Your task to perform on an android device: Add "usb-c to usb-b" to the cart on newegg, then select checkout. Image 0: 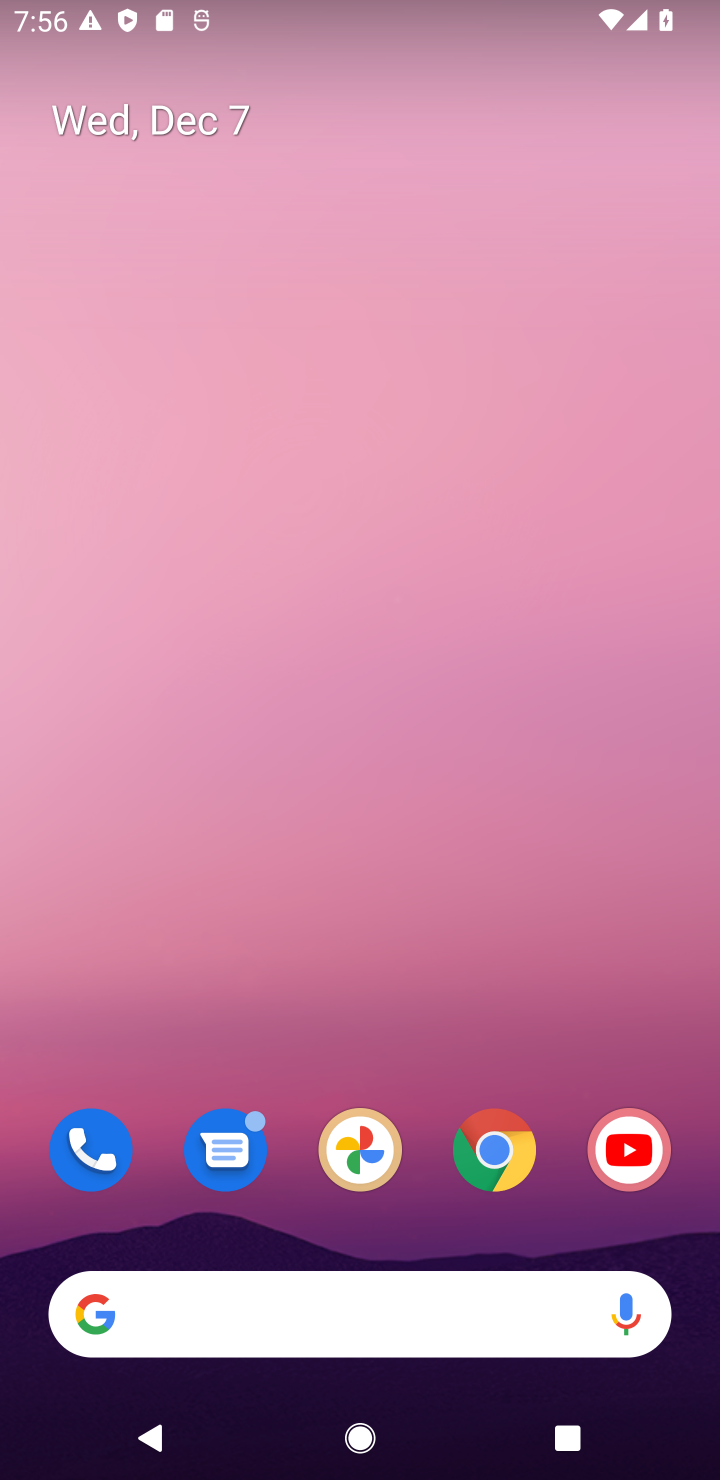
Step 0: click (494, 1164)
Your task to perform on an android device: Add "usb-c to usb-b" to the cart on newegg, then select checkout. Image 1: 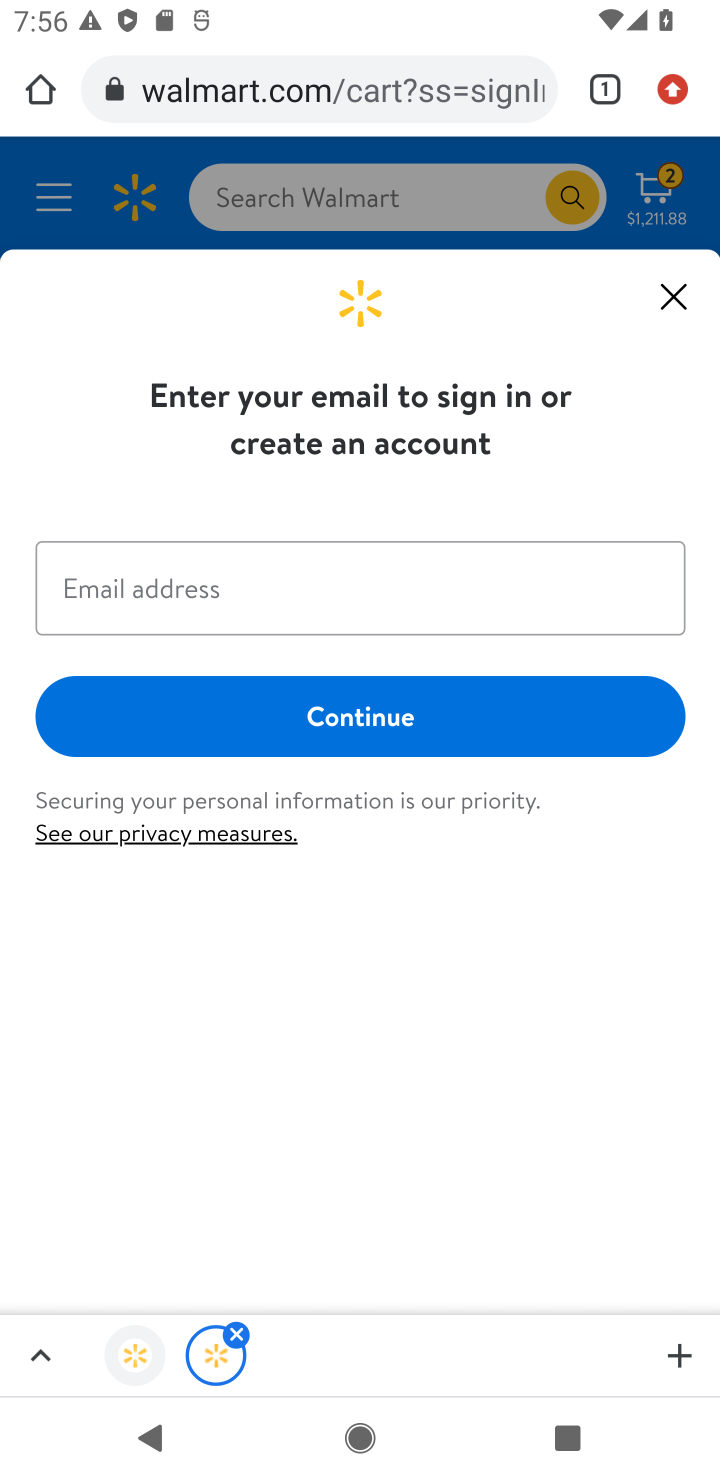
Step 1: click (342, 88)
Your task to perform on an android device: Add "usb-c to usb-b" to the cart on newegg, then select checkout. Image 2: 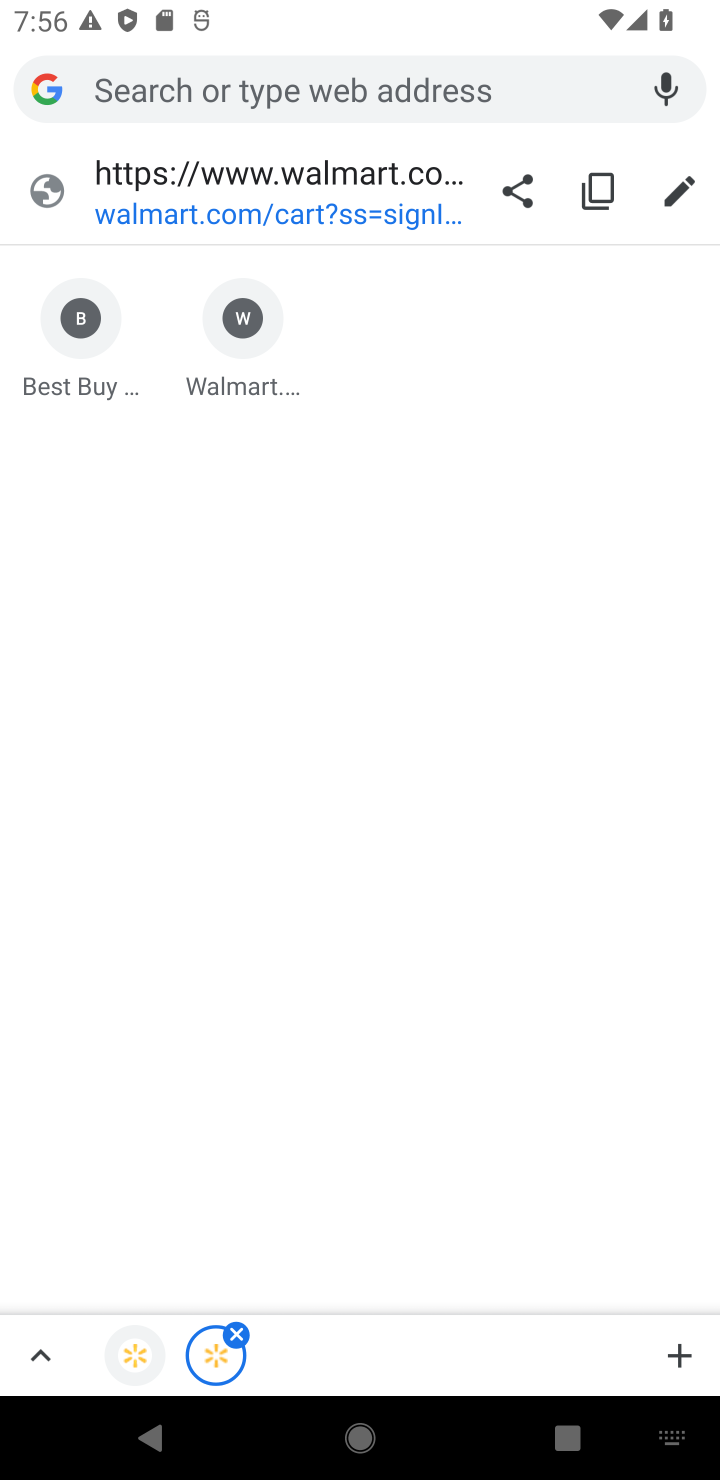
Step 2: type "newegg"
Your task to perform on an android device: Add "usb-c to usb-b" to the cart on newegg, then select checkout. Image 3: 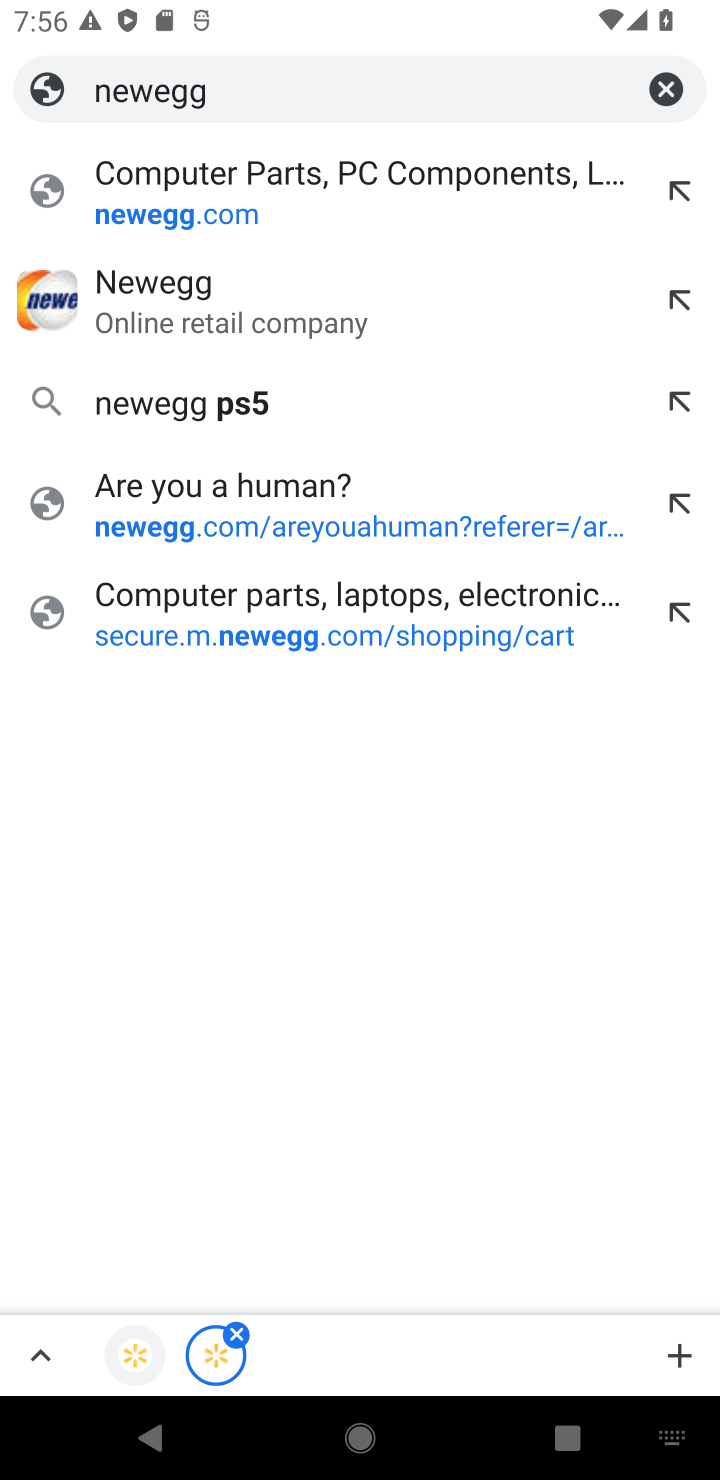
Step 3: click (233, 194)
Your task to perform on an android device: Add "usb-c to usb-b" to the cart on newegg, then select checkout. Image 4: 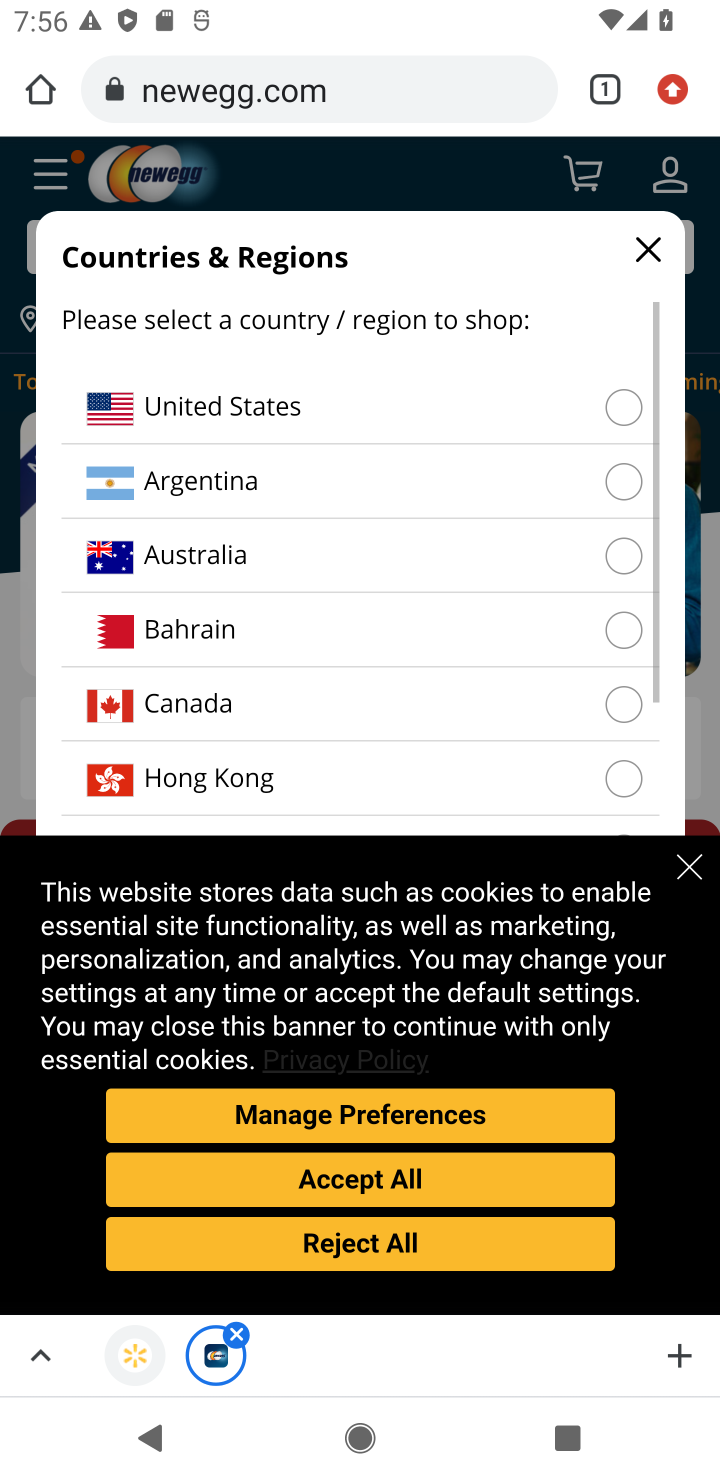
Step 4: click (642, 248)
Your task to perform on an android device: Add "usb-c to usb-b" to the cart on newegg, then select checkout. Image 5: 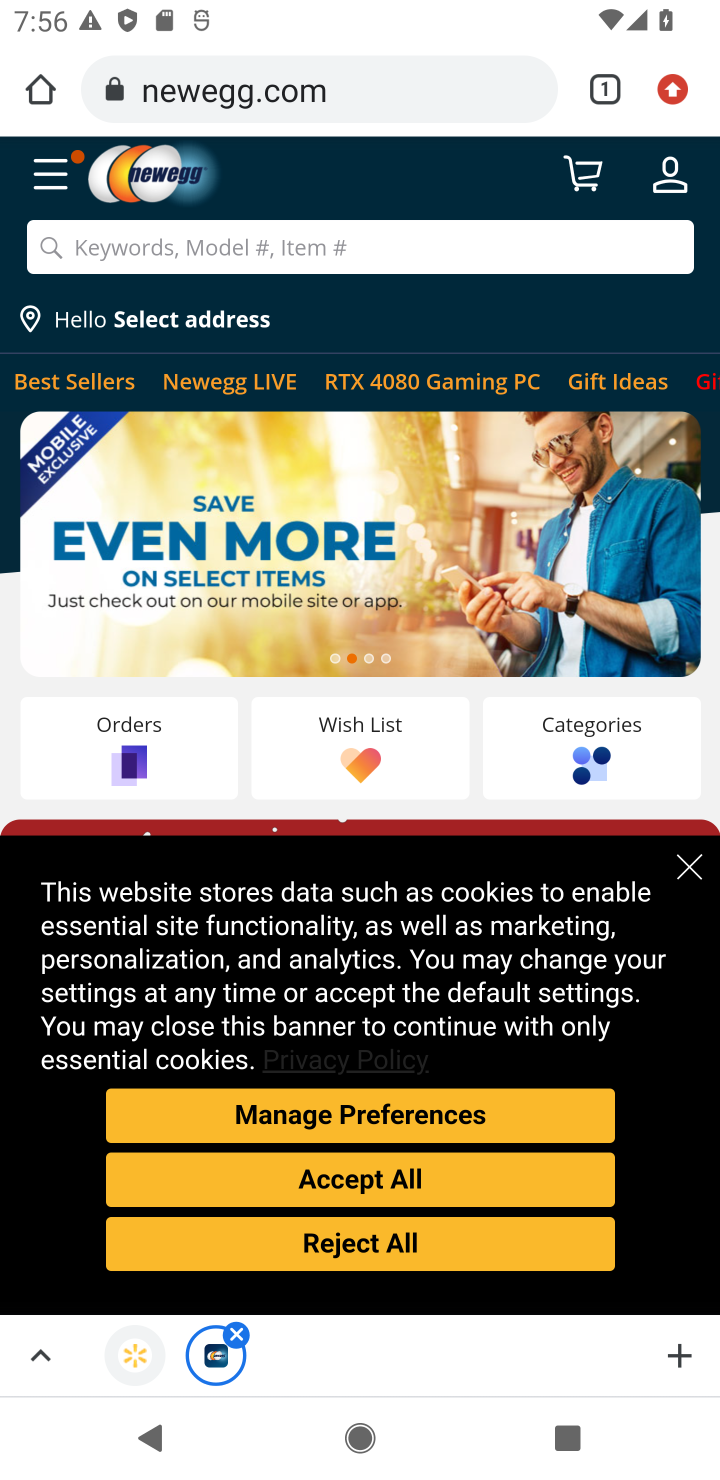
Step 5: click (691, 872)
Your task to perform on an android device: Add "usb-c to usb-b" to the cart on newegg, then select checkout. Image 6: 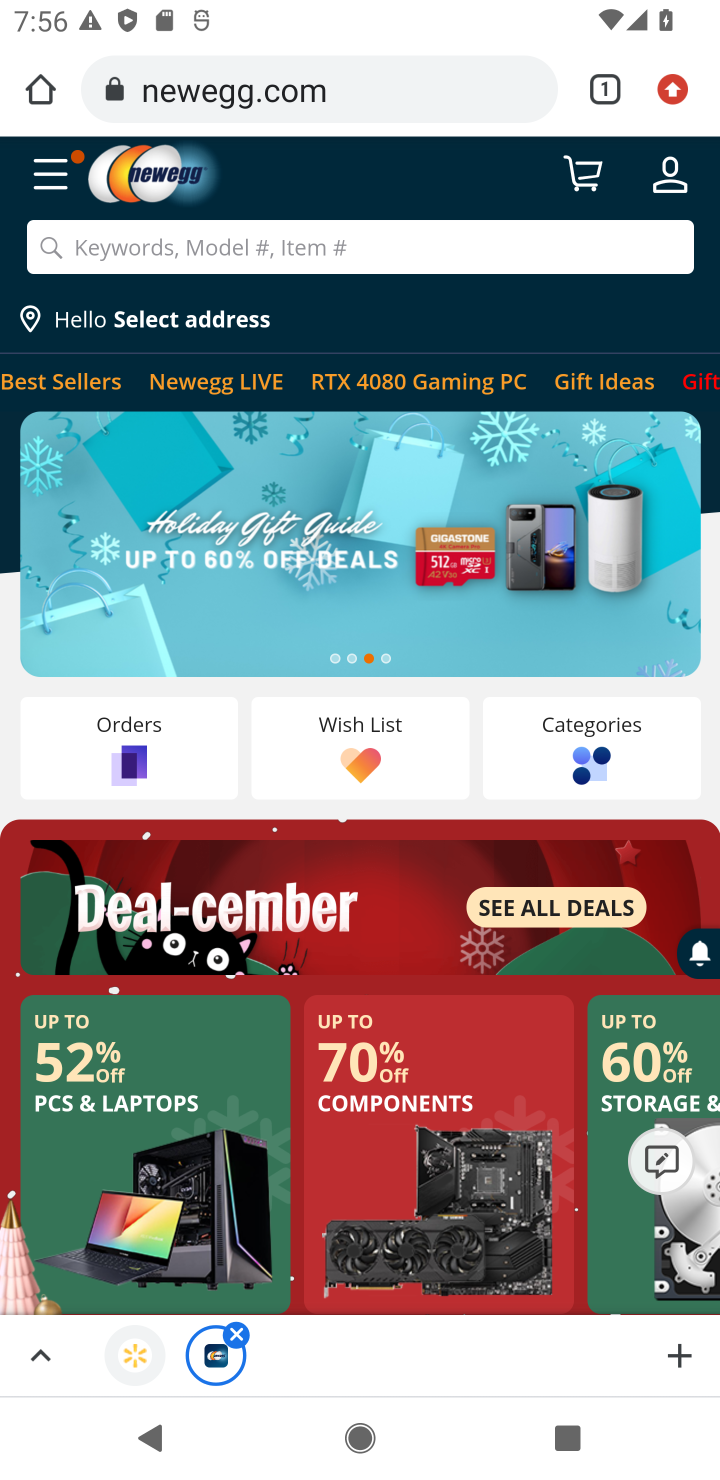
Step 6: click (408, 257)
Your task to perform on an android device: Add "usb-c to usb-b" to the cart on newegg, then select checkout. Image 7: 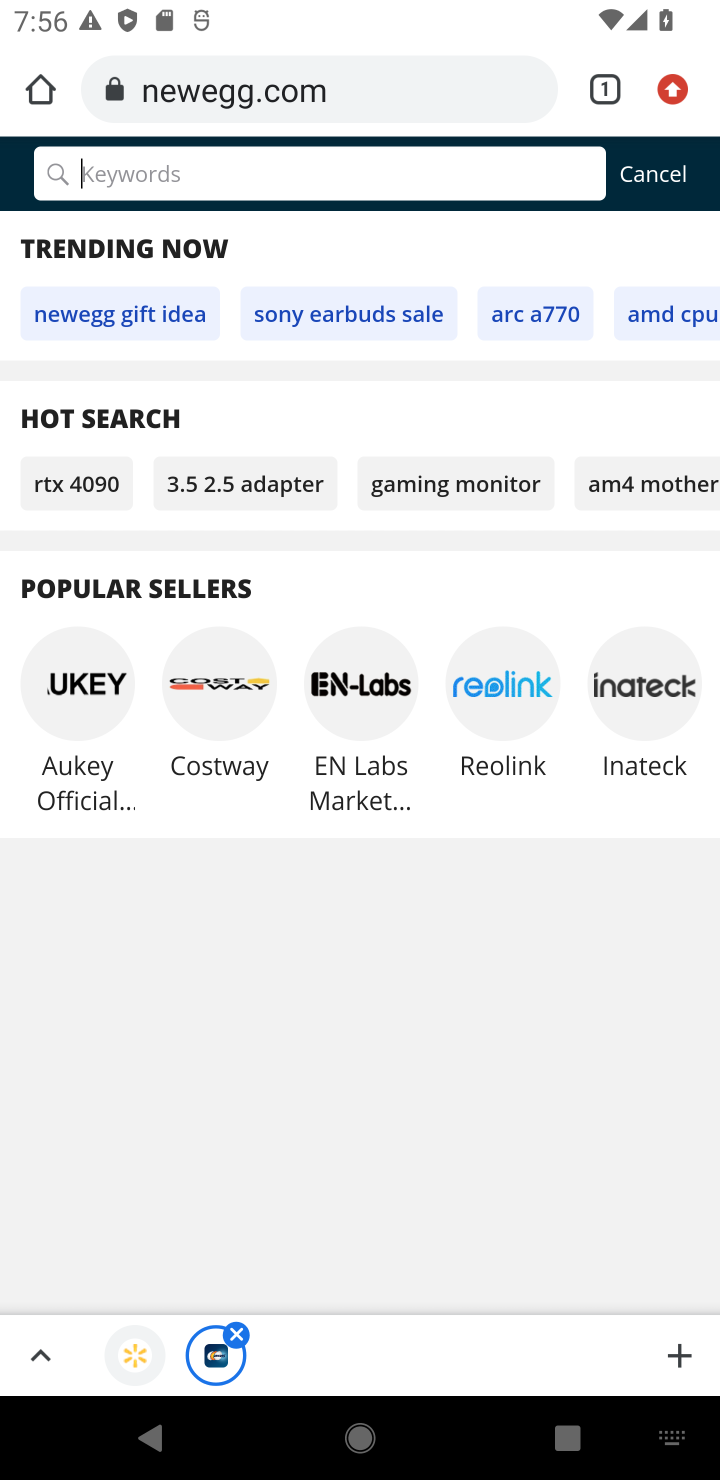
Step 7: type "usb-c to usb-b"
Your task to perform on an android device: Add "usb-c to usb-b" to the cart on newegg, then select checkout. Image 8: 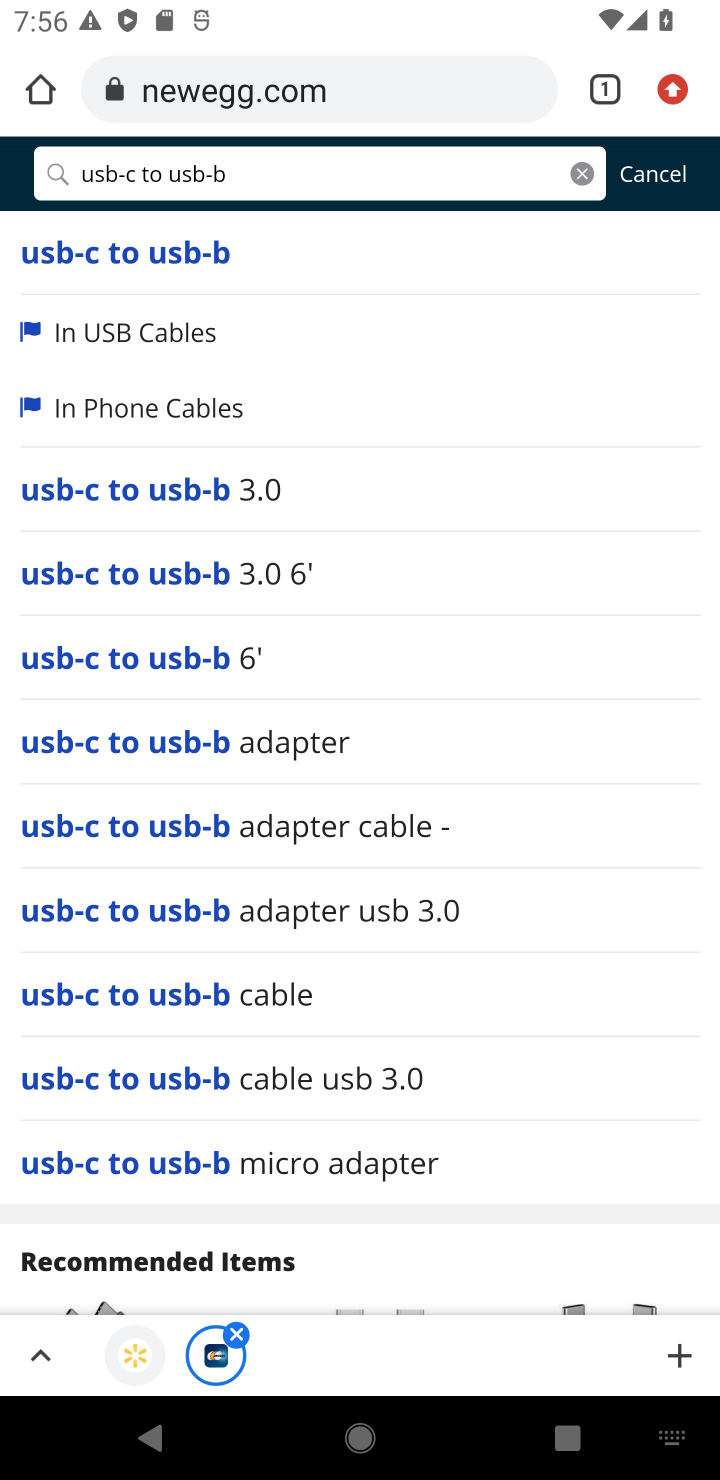
Step 8: click (153, 261)
Your task to perform on an android device: Add "usb-c to usb-b" to the cart on newegg, then select checkout. Image 9: 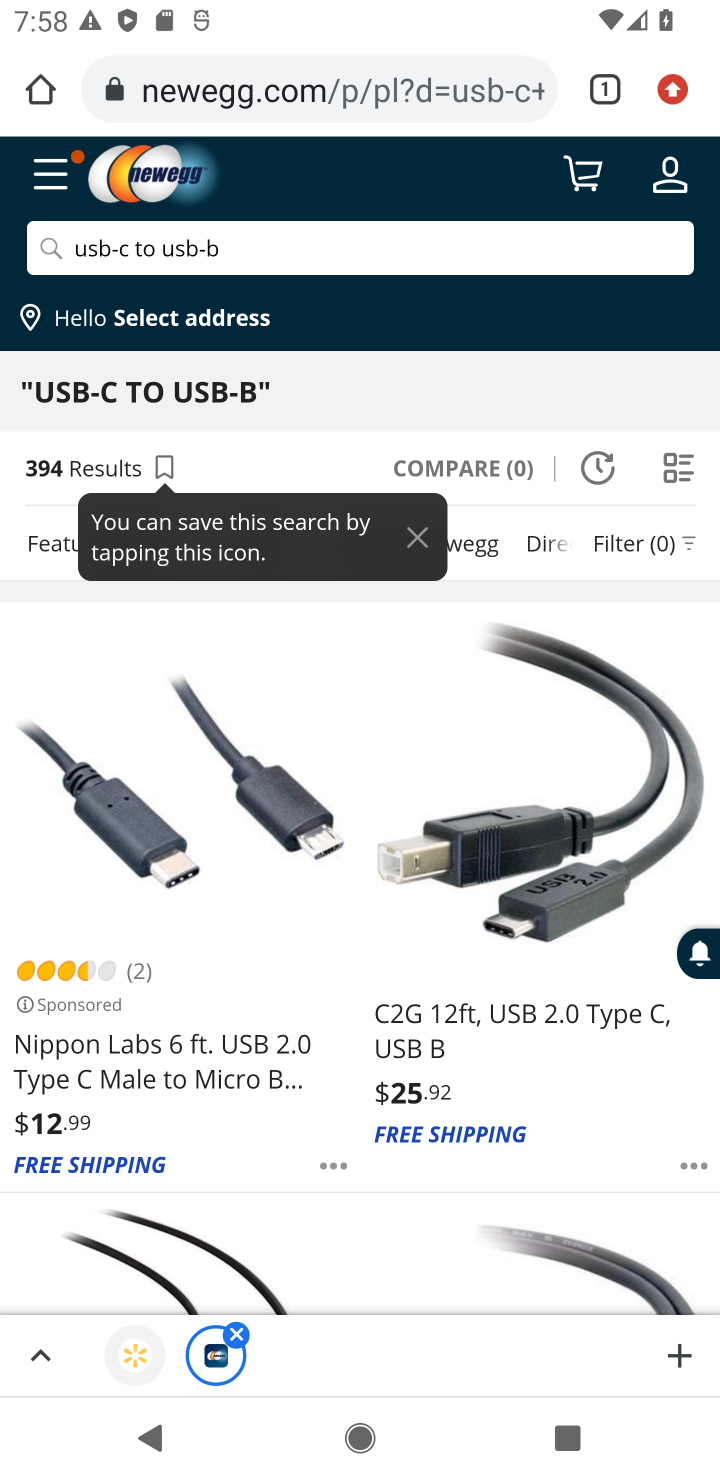
Step 9: click (157, 821)
Your task to perform on an android device: Add "usb-c to usb-b" to the cart on newegg, then select checkout. Image 10: 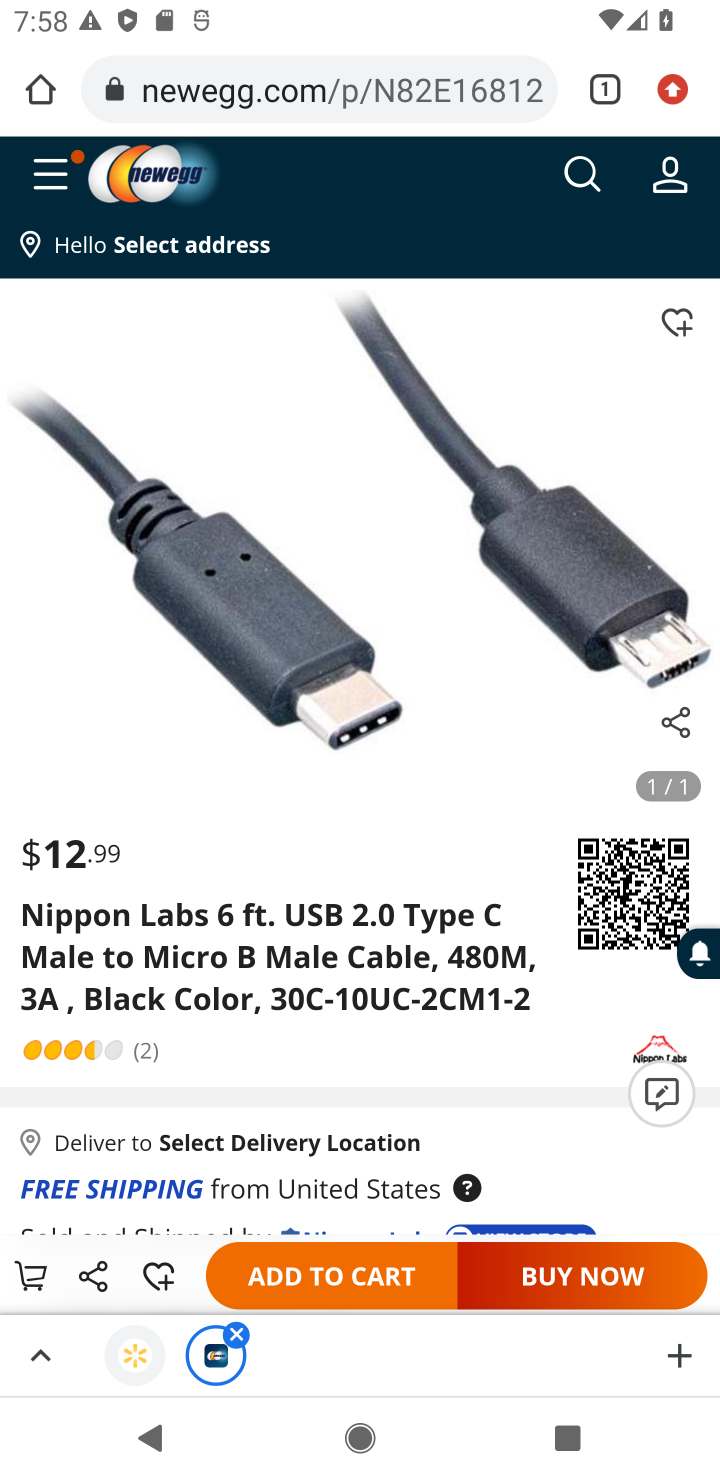
Step 10: click (369, 1279)
Your task to perform on an android device: Add "usb-c to usb-b" to the cart on newegg, then select checkout. Image 11: 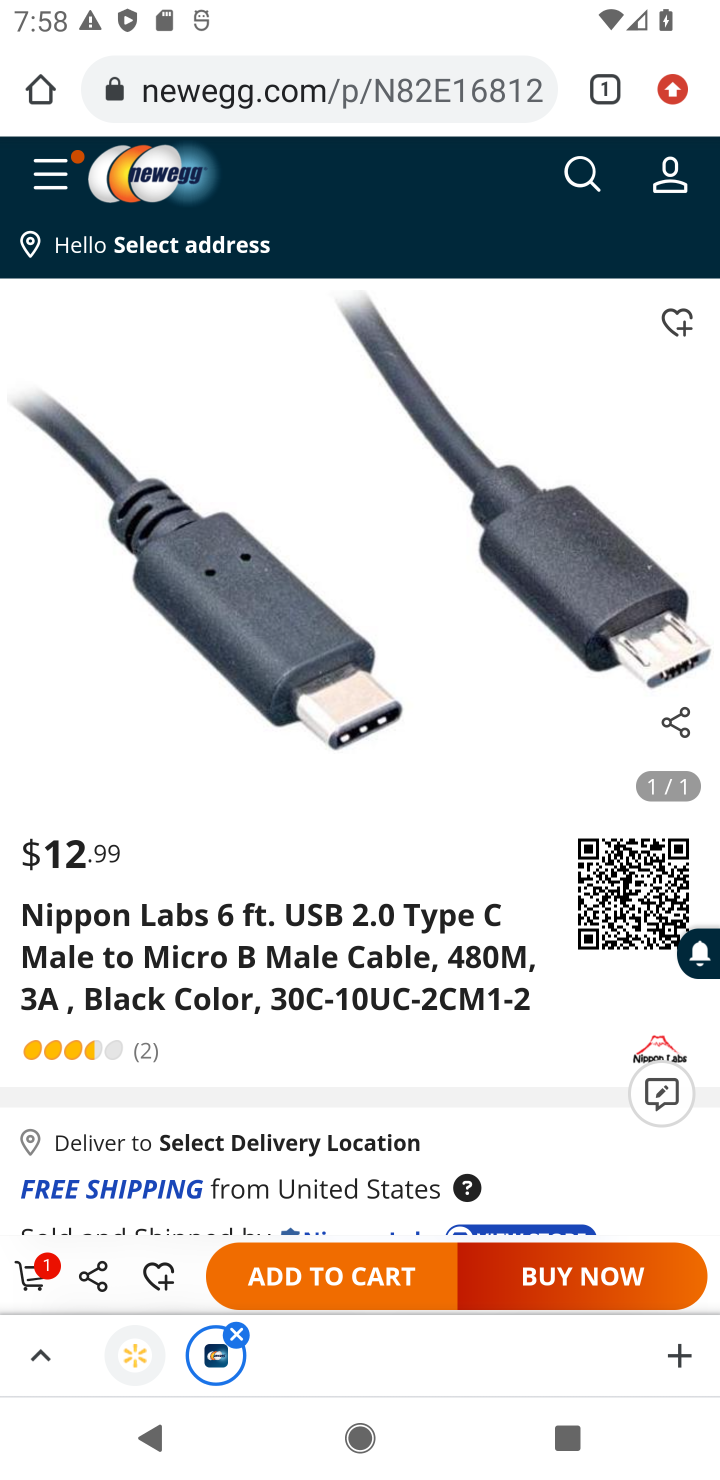
Step 11: click (363, 1284)
Your task to perform on an android device: Add "usb-c to usb-b" to the cart on newegg, then select checkout. Image 12: 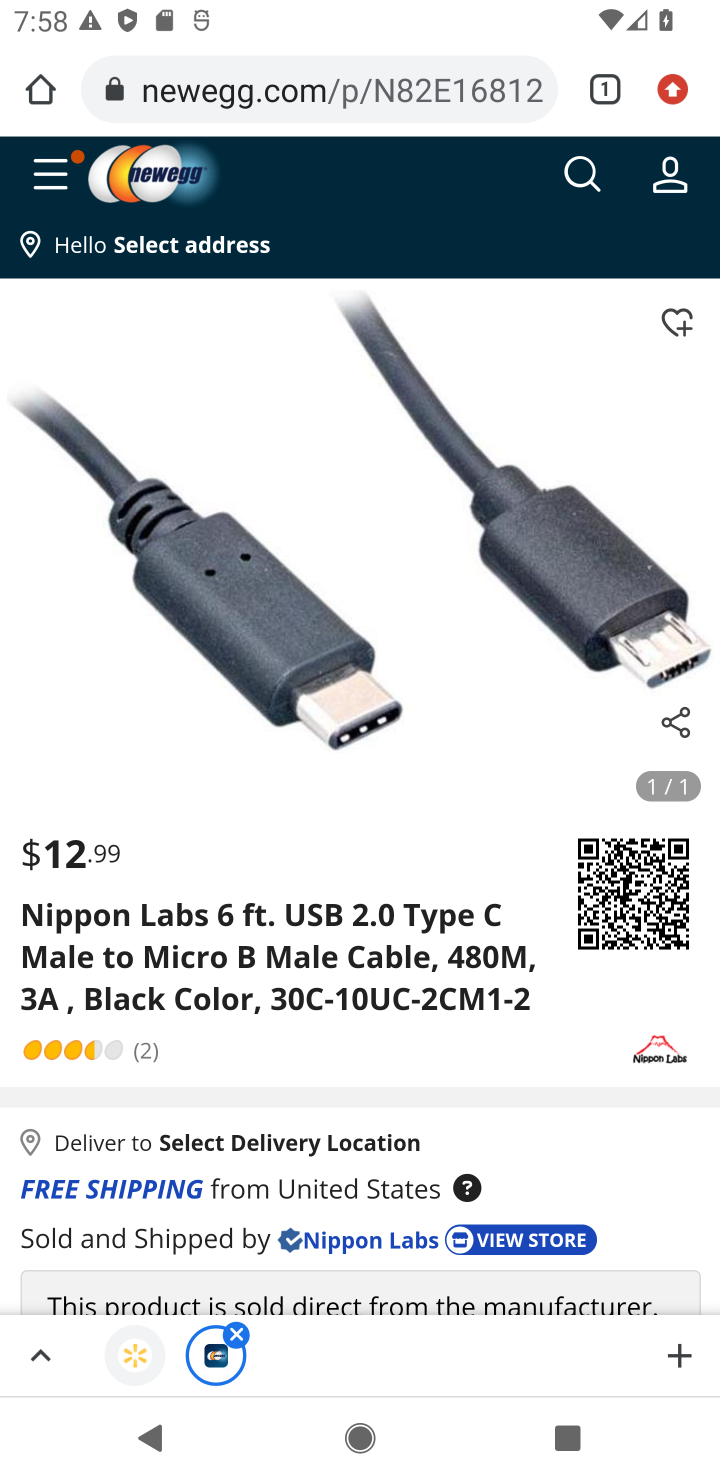
Step 12: task complete